Your task to perform on an android device: change notifications settings Image 0: 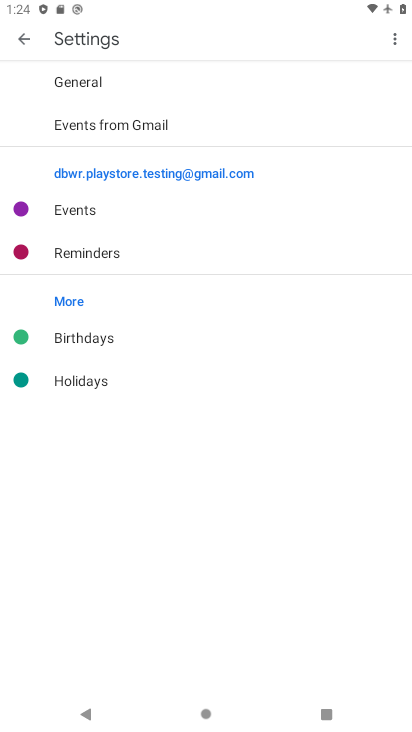
Step 0: press home button
Your task to perform on an android device: change notifications settings Image 1: 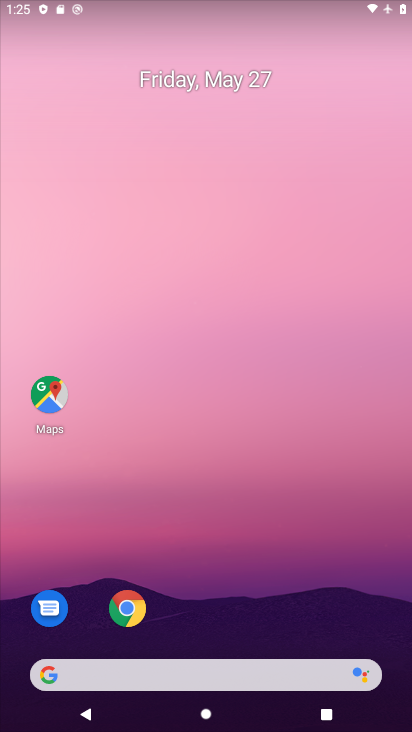
Step 1: drag from (187, 667) to (322, 172)
Your task to perform on an android device: change notifications settings Image 2: 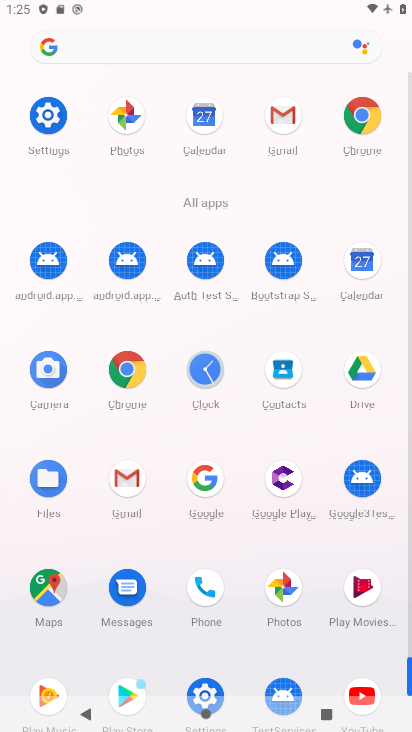
Step 2: click (52, 120)
Your task to perform on an android device: change notifications settings Image 3: 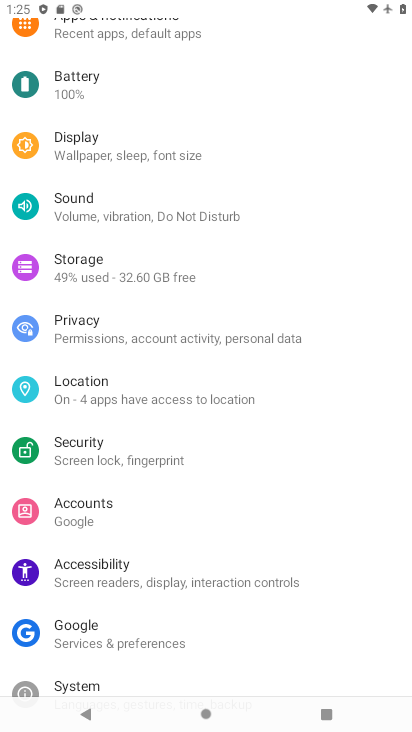
Step 3: drag from (313, 158) to (202, 579)
Your task to perform on an android device: change notifications settings Image 4: 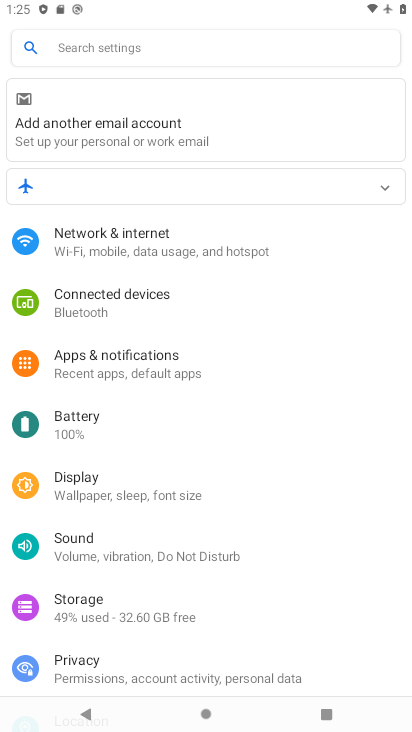
Step 4: click (130, 354)
Your task to perform on an android device: change notifications settings Image 5: 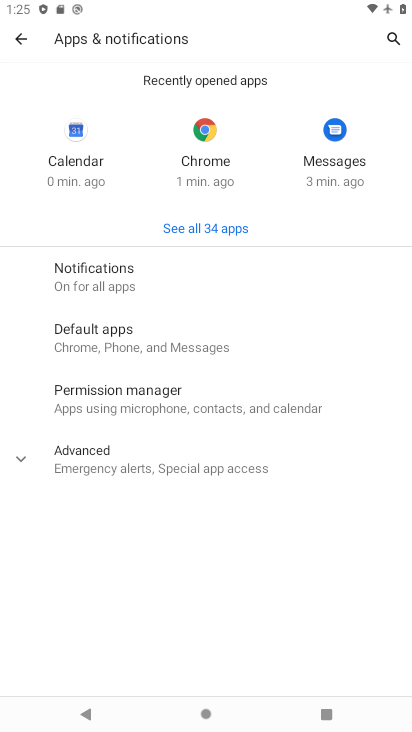
Step 5: click (105, 275)
Your task to perform on an android device: change notifications settings Image 6: 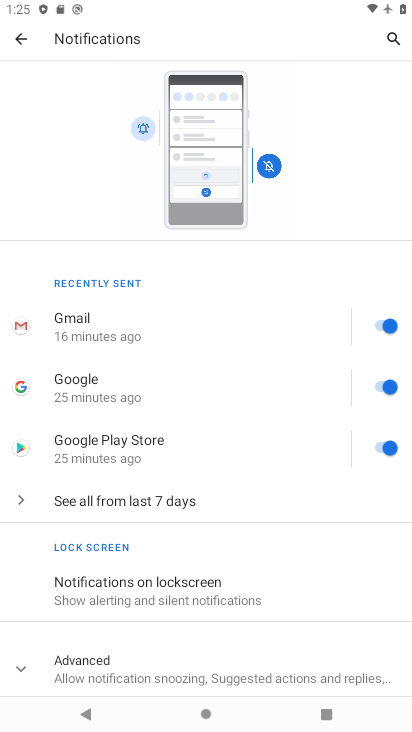
Step 6: task complete